Your task to perform on an android device: open wifi settings Image 0: 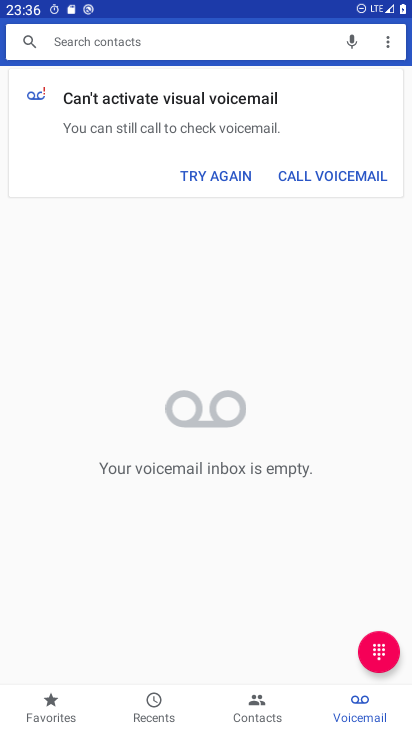
Step 0: press home button
Your task to perform on an android device: open wifi settings Image 1: 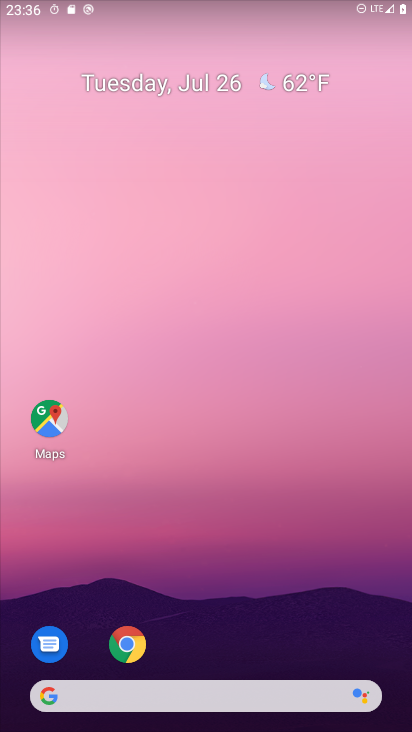
Step 1: drag from (242, 650) to (229, 68)
Your task to perform on an android device: open wifi settings Image 2: 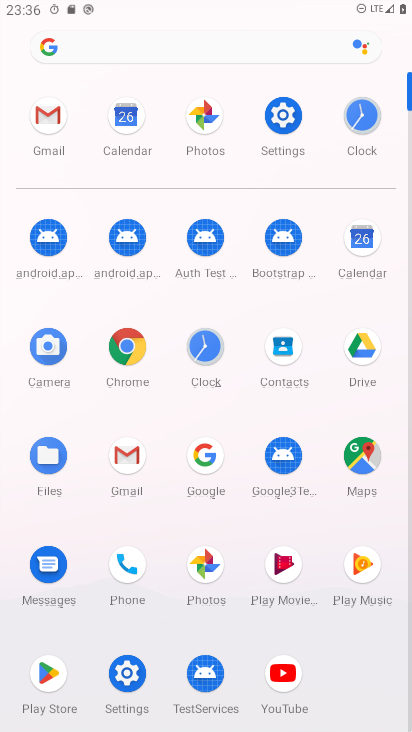
Step 2: click (284, 126)
Your task to perform on an android device: open wifi settings Image 3: 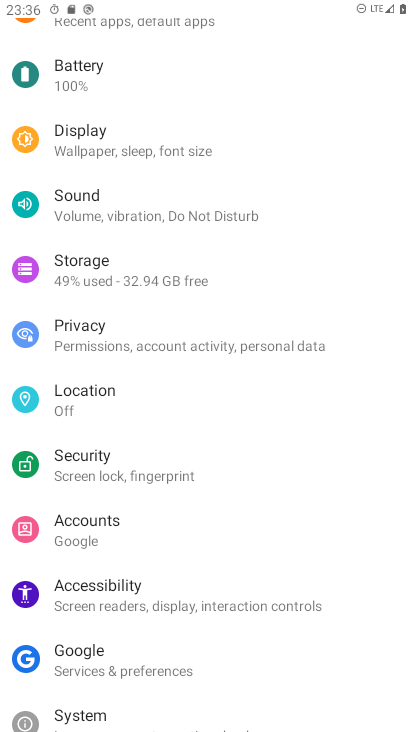
Step 3: drag from (284, 126) to (284, 487)
Your task to perform on an android device: open wifi settings Image 4: 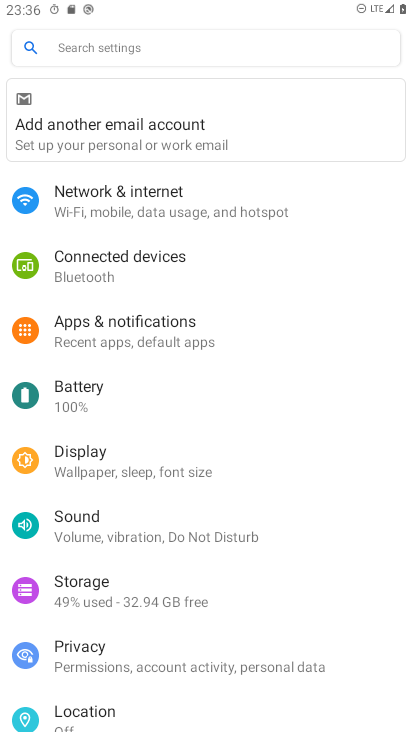
Step 4: click (81, 212)
Your task to perform on an android device: open wifi settings Image 5: 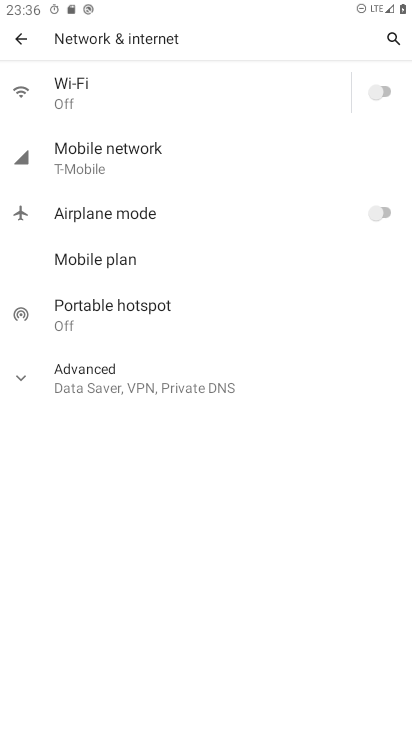
Step 5: click (45, 89)
Your task to perform on an android device: open wifi settings Image 6: 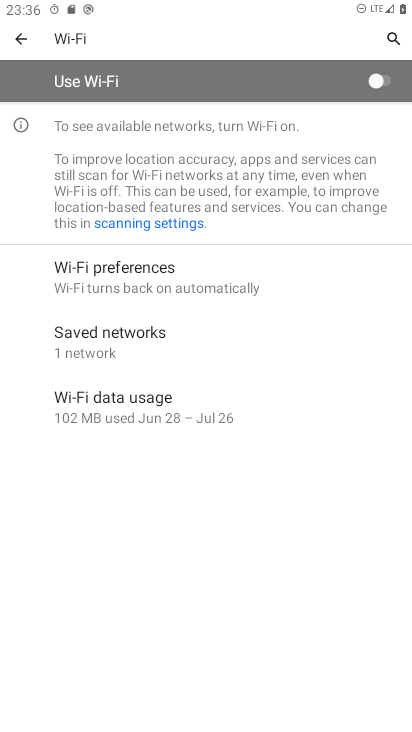
Step 6: task complete